Your task to perform on an android device: turn notification dots off Image 0: 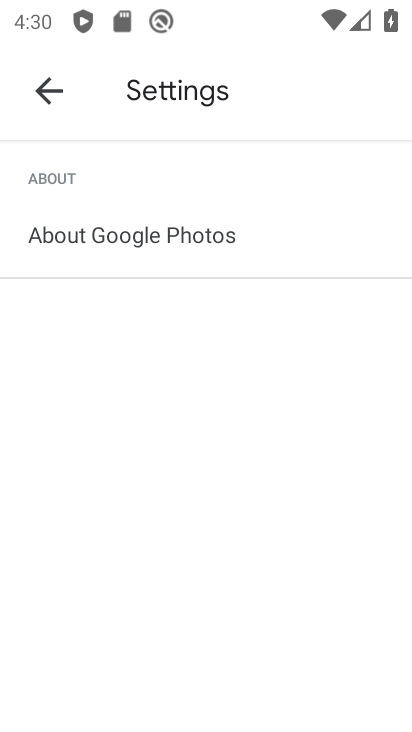
Step 0: press home button
Your task to perform on an android device: turn notification dots off Image 1: 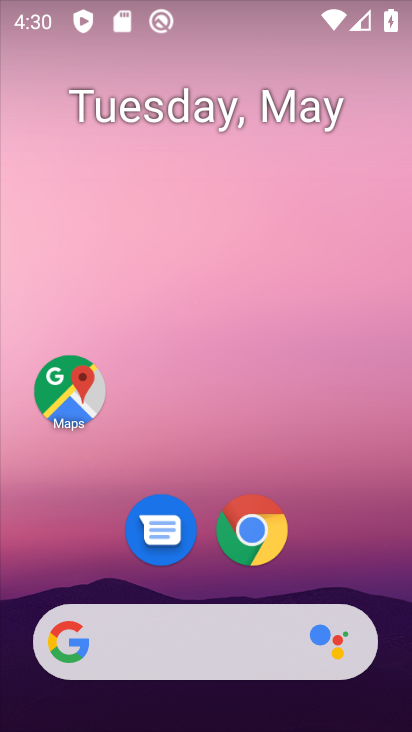
Step 1: drag from (223, 466) to (280, 125)
Your task to perform on an android device: turn notification dots off Image 2: 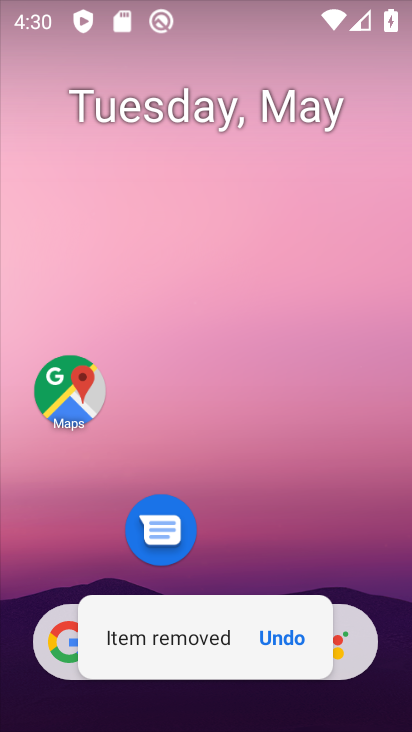
Step 2: drag from (236, 570) to (266, 85)
Your task to perform on an android device: turn notification dots off Image 3: 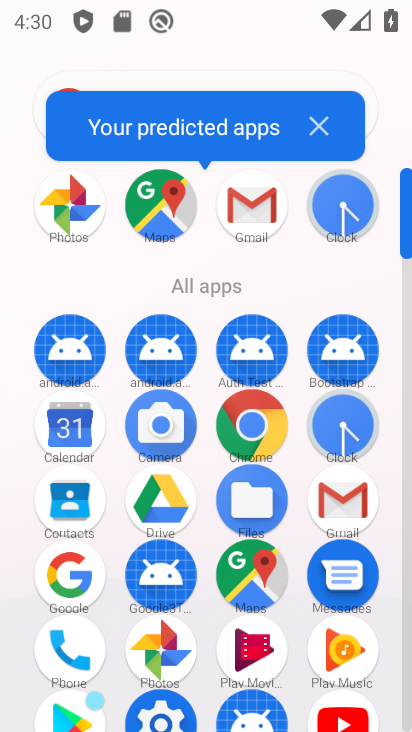
Step 3: click (104, 224)
Your task to perform on an android device: turn notification dots off Image 4: 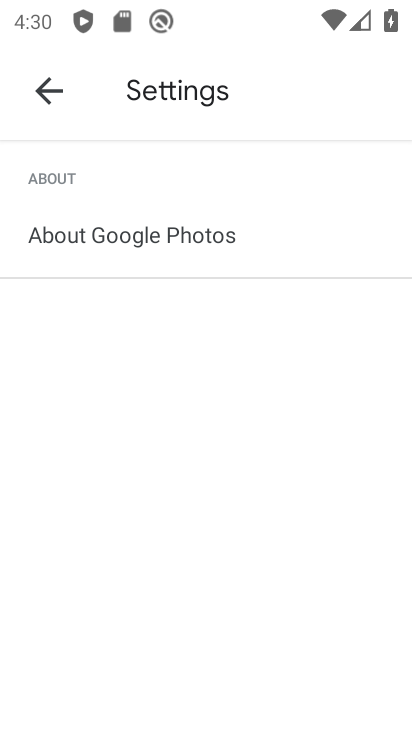
Step 4: click (48, 92)
Your task to perform on an android device: turn notification dots off Image 5: 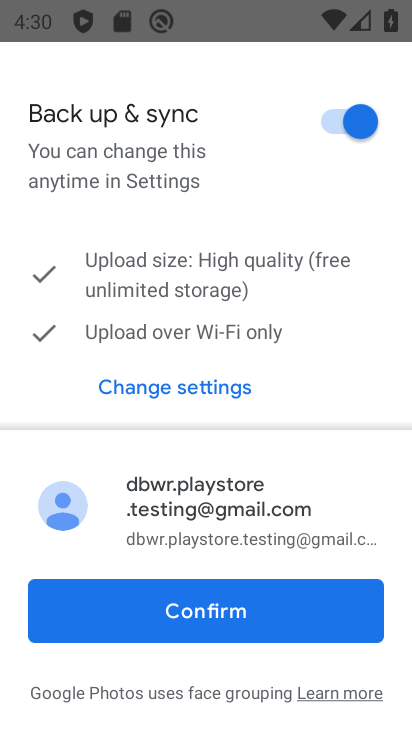
Step 5: press home button
Your task to perform on an android device: turn notification dots off Image 6: 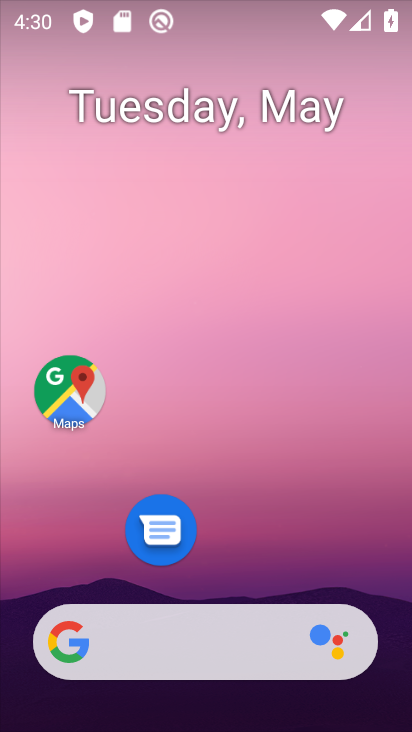
Step 6: drag from (260, 572) to (332, 15)
Your task to perform on an android device: turn notification dots off Image 7: 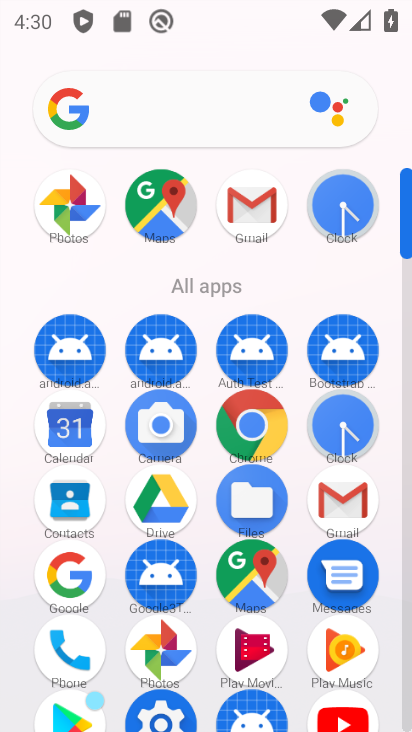
Step 7: click (169, 713)
Your task to perform on an android device: turn notification dots off Image 8: 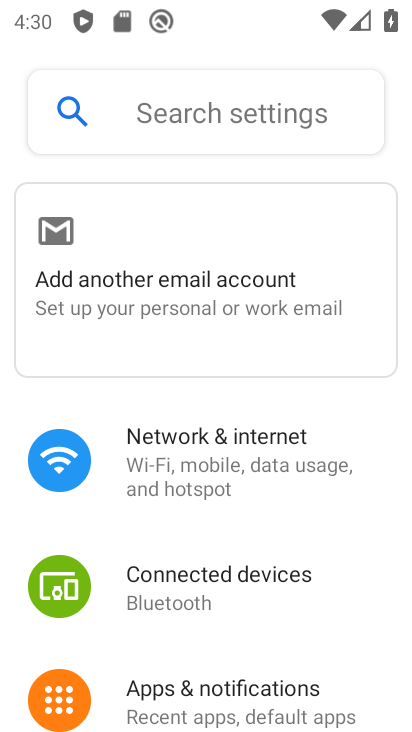
Step 8: click (226, 681)
Your task to perform on an android device: turn notification dots off Image 9: 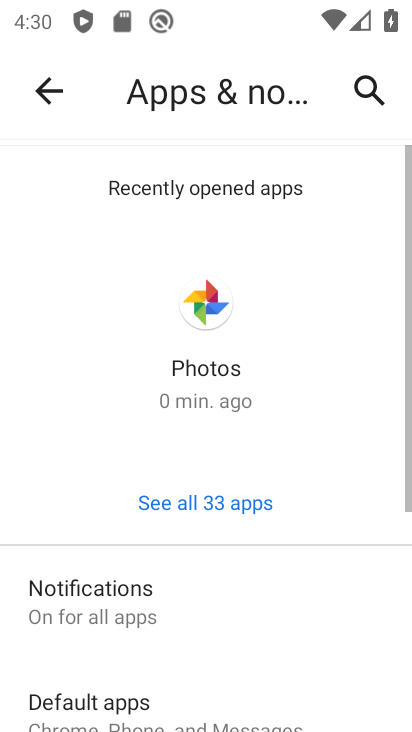
Step 9: drag from (187, 684) to (186, 114)
Your task to perform on an android device: turn notification dots off Image 10: 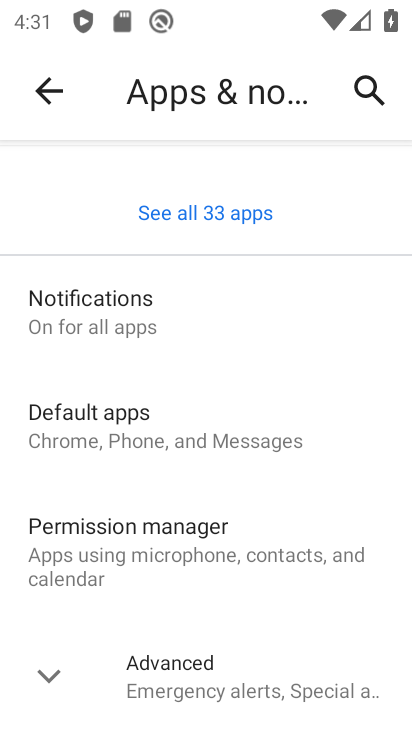
Step 10: click (176, 655)
Your task to perform on an android device: turn notification dots off Image 11: 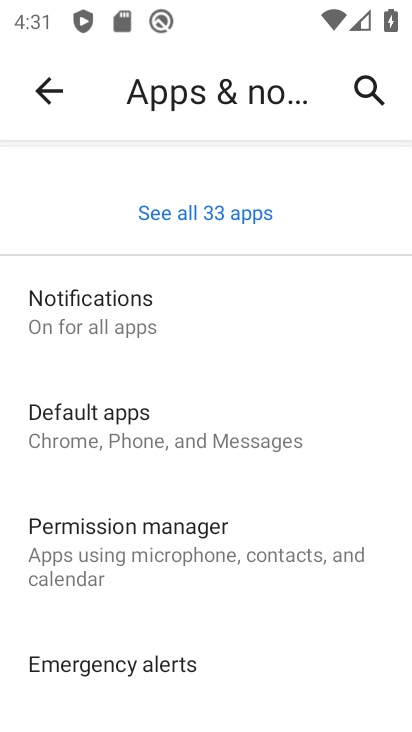
Step 11: drag from (172, 503) to (174, 177)
Your task to perform on an android device: turn notification dots off Image 12: 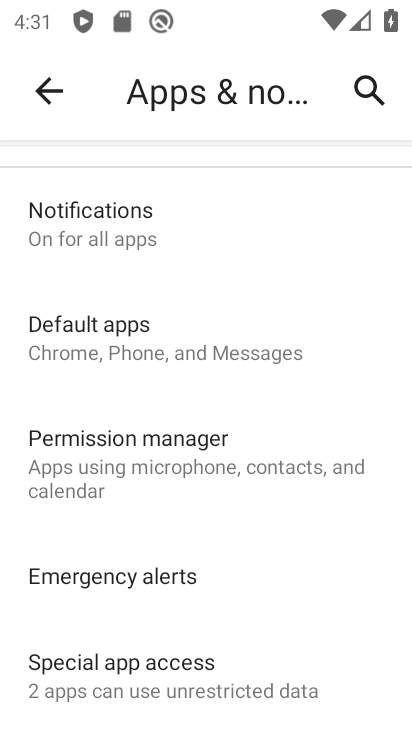
Step 12: drag from (214, 687) to (231, 422)
Your task to perform on an android device: turn notification dots off Image 13: 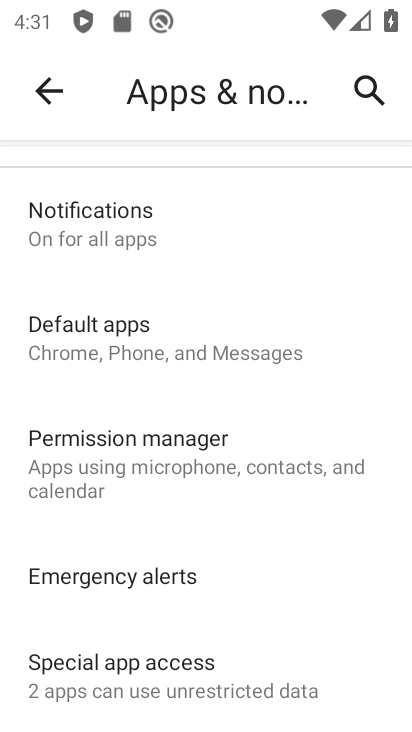
Step 13: click (156, 242)
Your task to perform on an android device: turn notification dots off Image 14: 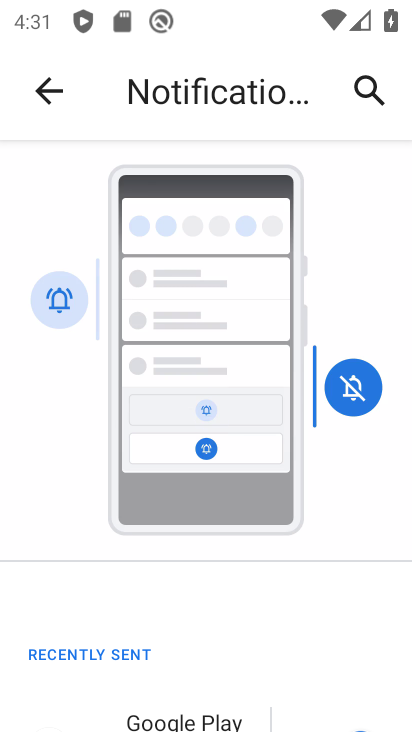
Step 14: drag from (160, 669) to (288, 86)
Your task to perform on an android device: turn notification dots off Image 15: 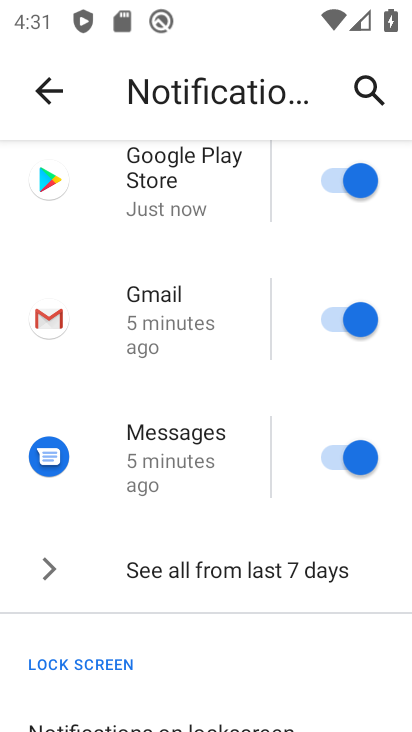
Step 15: drag from (279, 699) to (334, 328)
Your task to perform on an android device: turn notification dots off Image 16: 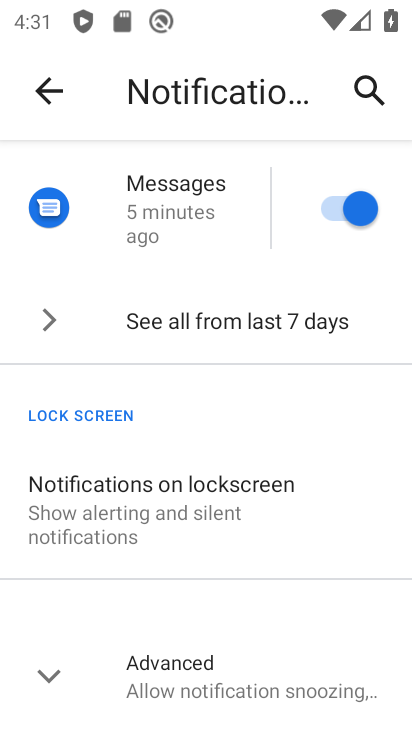
Step 16: click (148, 671)
Your task to perform on an android device: turn notification dots off Image 17: 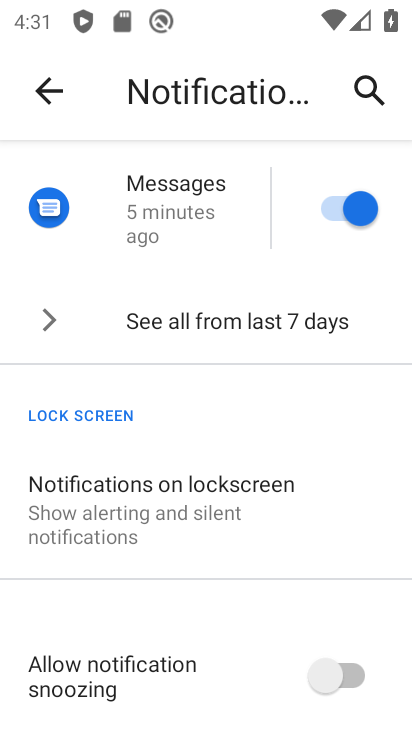
Step 17: drag from (241, 665) to (278, 22)
Your task to perform on an android device: turn notification dots off Image 18: 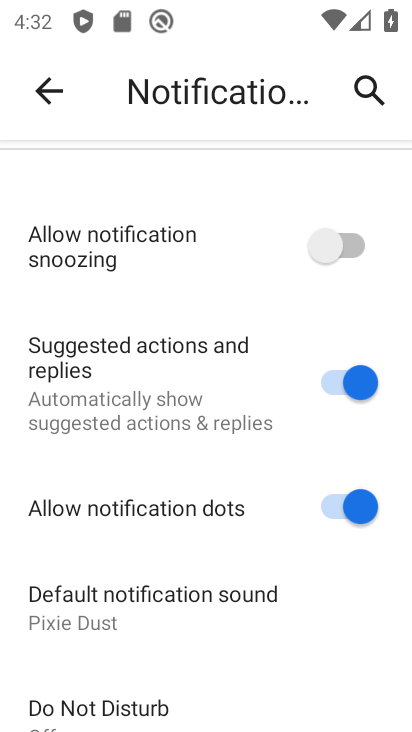
Step 18: click (372, 497)
Your task to perform on an android device: turn notification dots off Image 19: 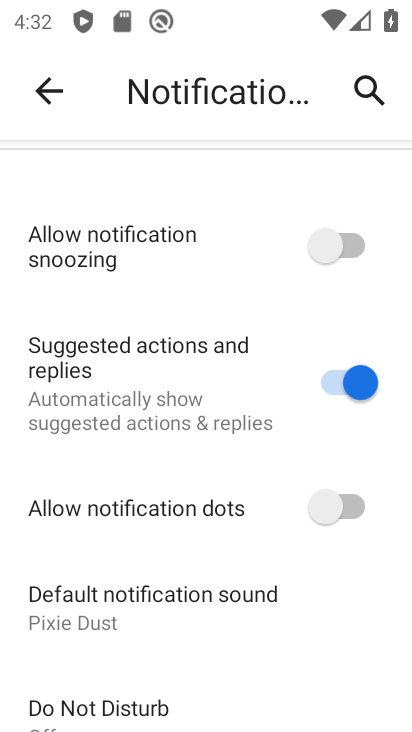
Step 19: task complete